Your task to perform on an android device: turn notification dots on Image 0: 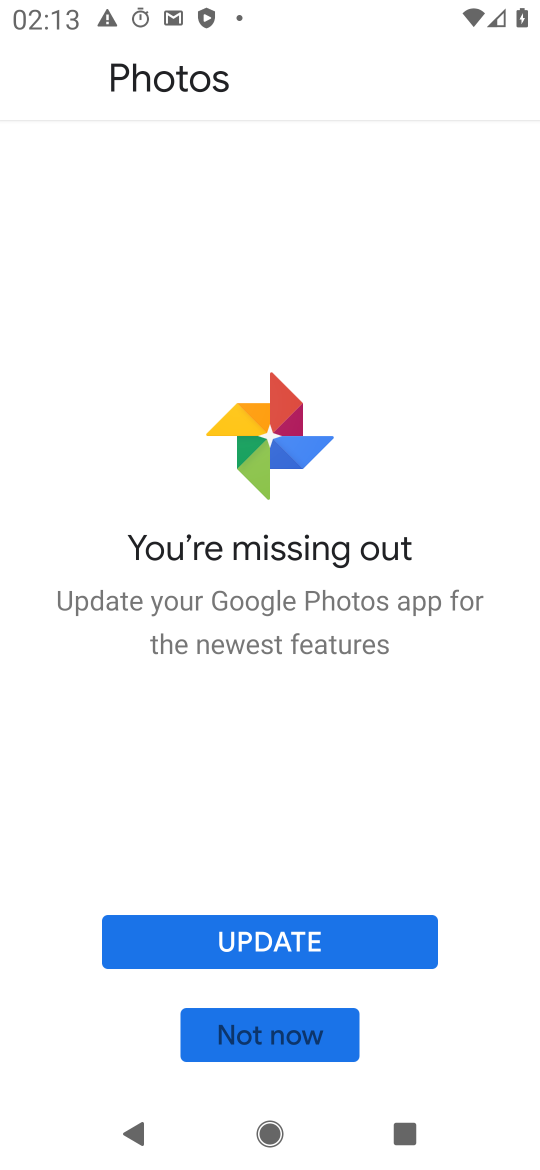
Step 0: press home button
Your task to perform on an android device: turn notification dots on Image 1: 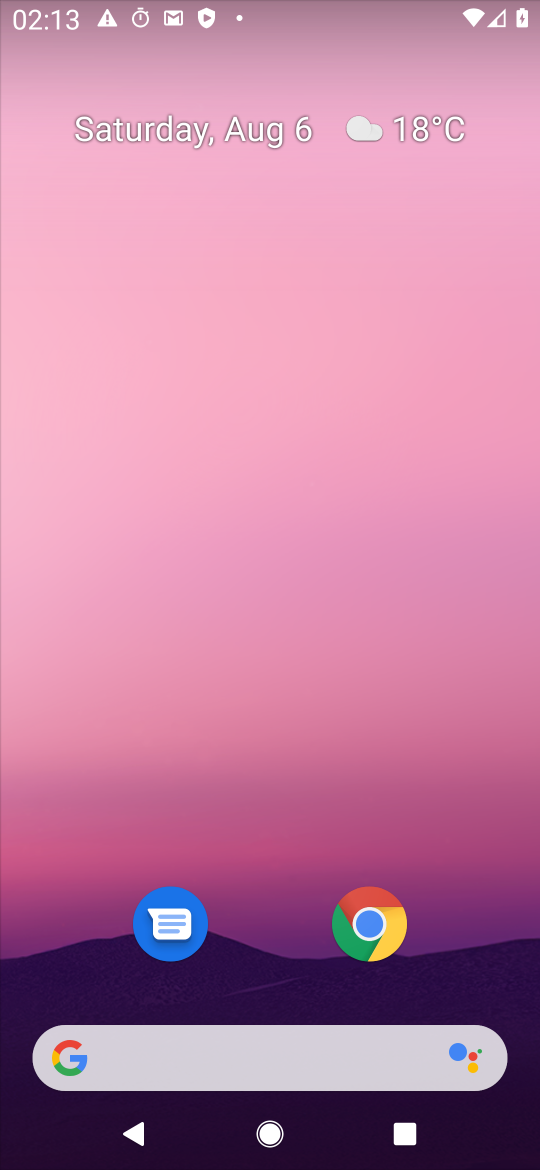
Step 1: drag from (304, 1051) to (373, 33)
Your task to perform on an android device: turn notification dots on Image 2: 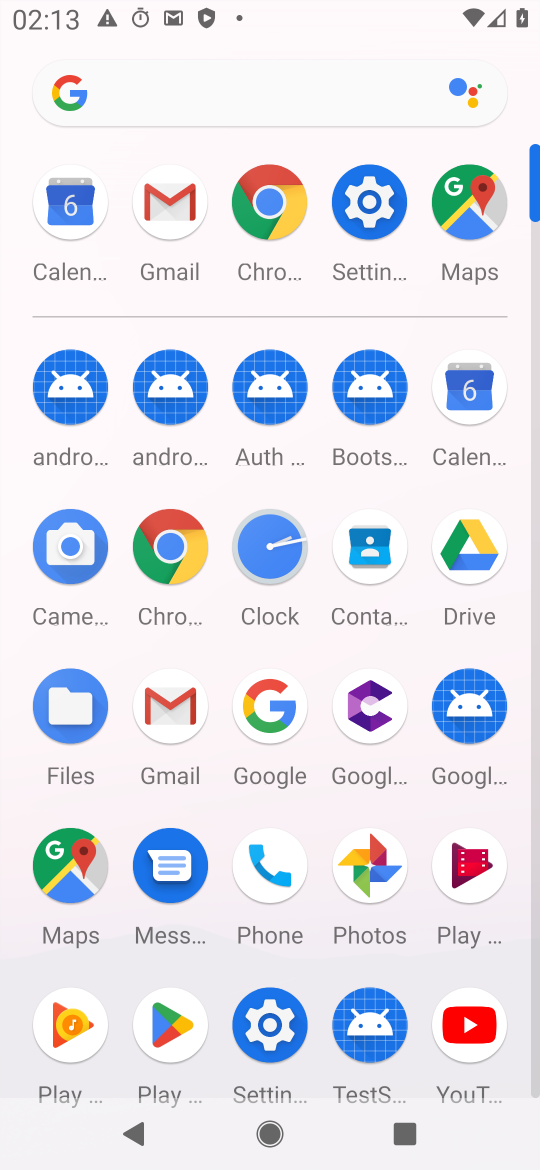
Step 2: click (366, 206)
Your task to perform on an android device: turn notification dots on Image 3: 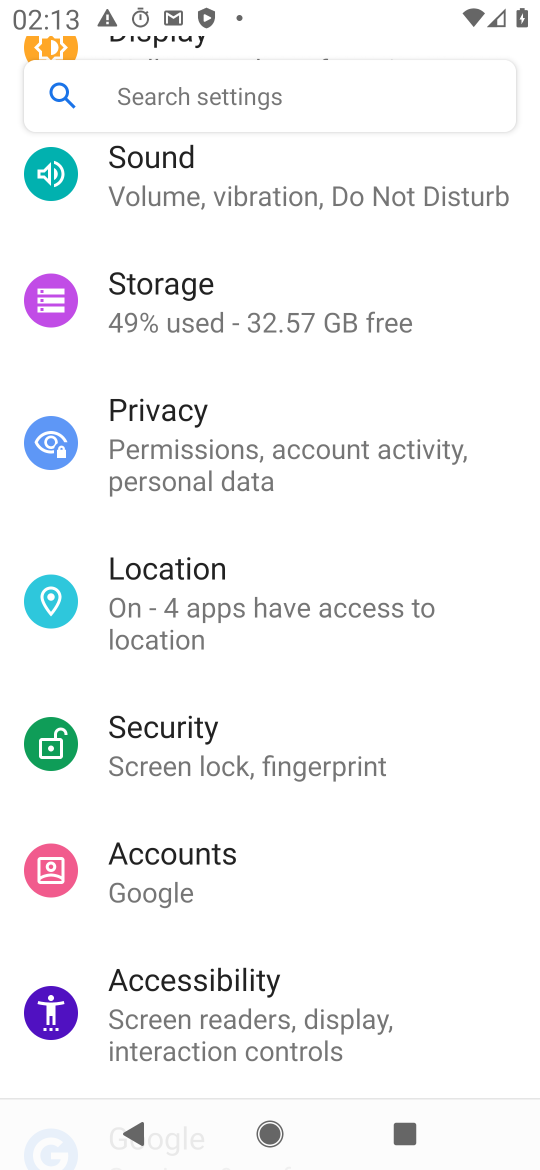
Step 3: drag from (499, 361) to (469, 888)
Your task to perform on an android device: turn notification dots on Image 4: 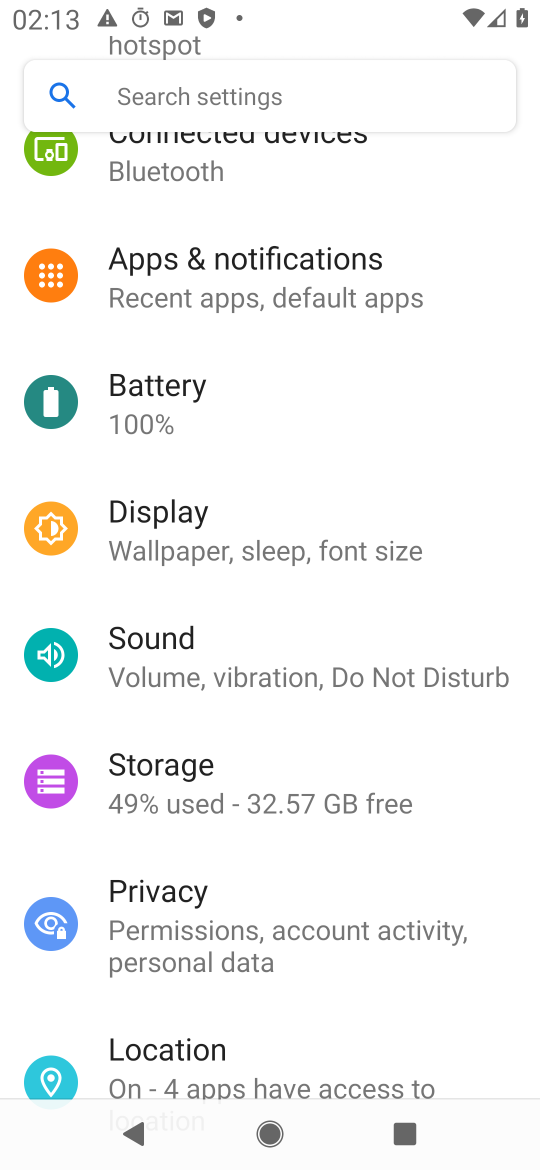
Step 4: click (320, 291)
Your task to perform on an android device: turn notification dots on Image 5: 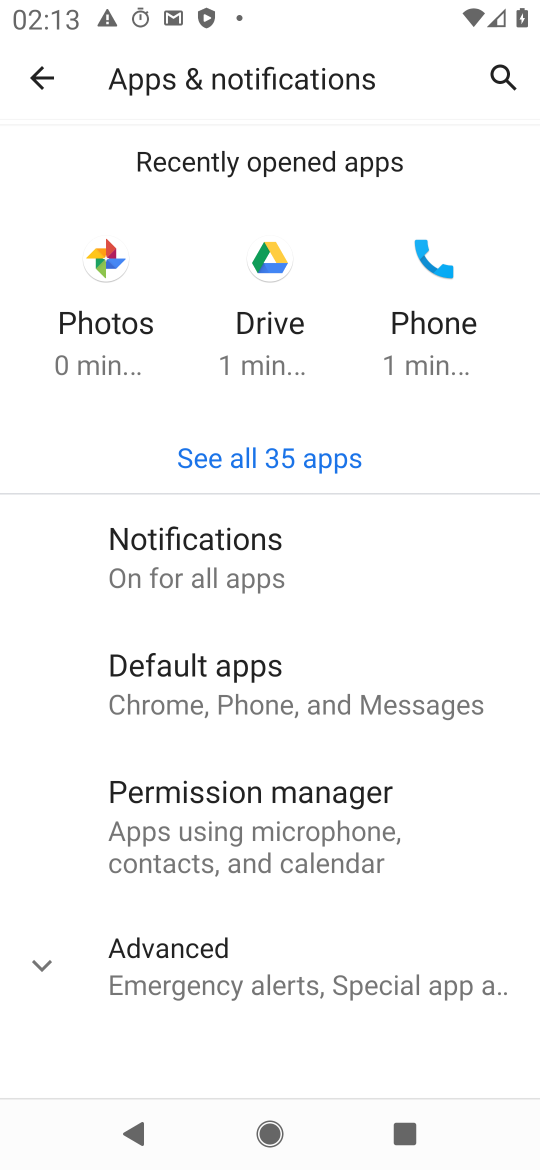
Step 5: click (252, 570)
Your task to perform on an android device: turn notification dots on Image 6: 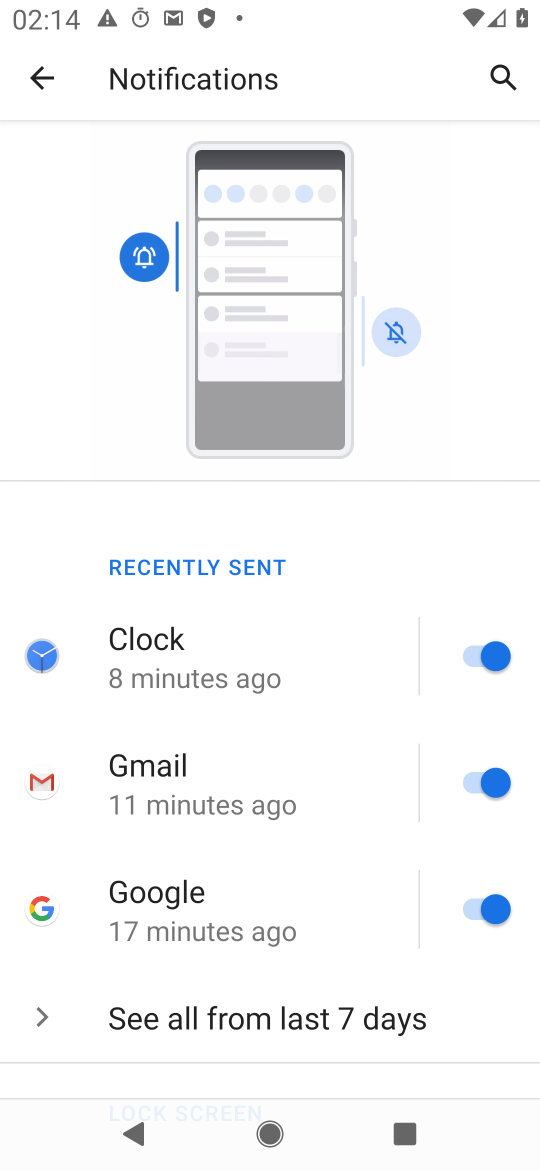
Step 6: drag from (332, 974) to (360, 83)
Your task to perform on an android device: turn notification dots on Image 7: 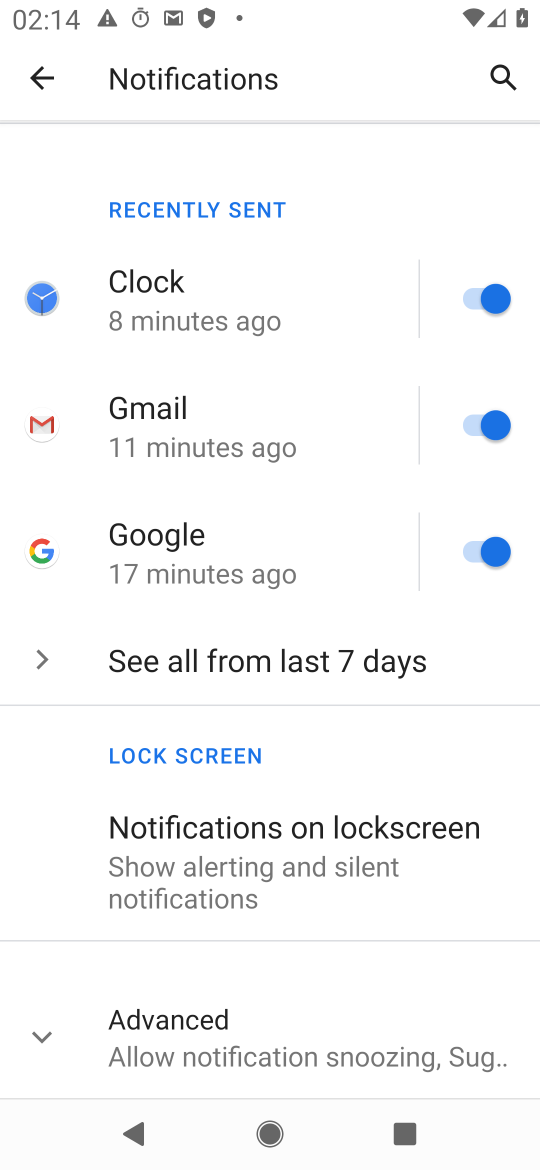
Step 7: click (255, 1049)
Your task to perform on an android device: turn notification dots on Image 8: 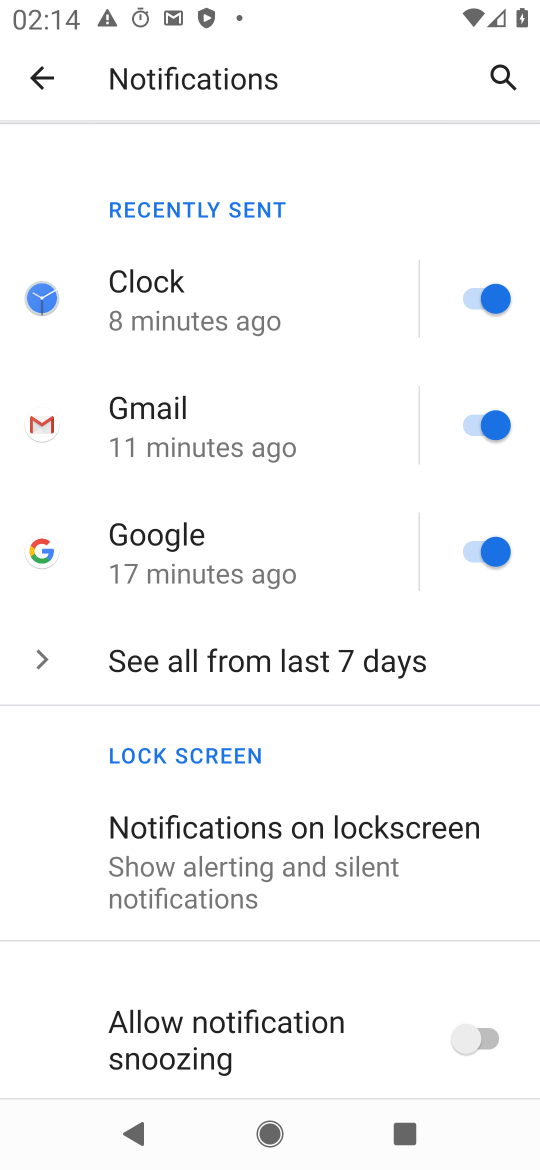
Step 8: drag from (404, 950) to (391, 460)
Your task to perform on an android device: turn notification dots on Image 9: 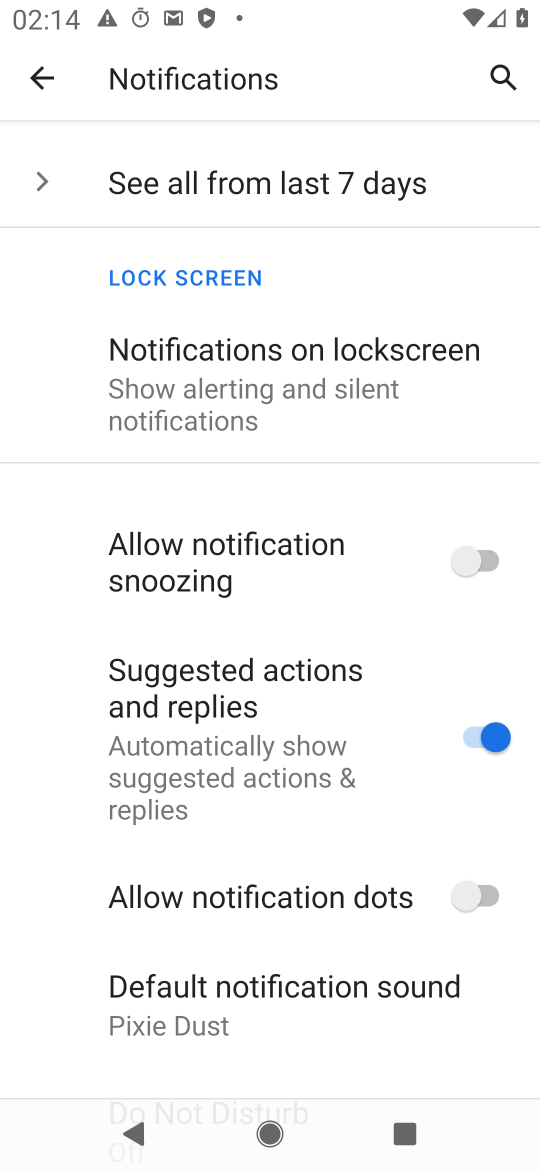
Step 9: click (480, 895)
Your task to perform on an android device: turn notification dots on Image 10: 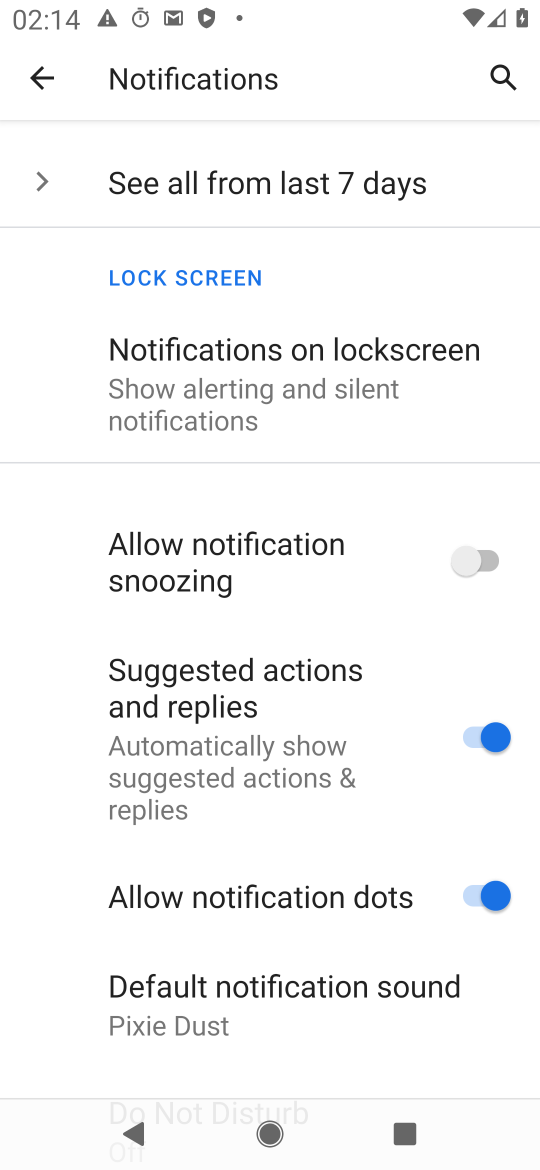
Step 10: task complete